Your task to perform on an android device: Open Google Chrome and open the bookmarks view Image 0: 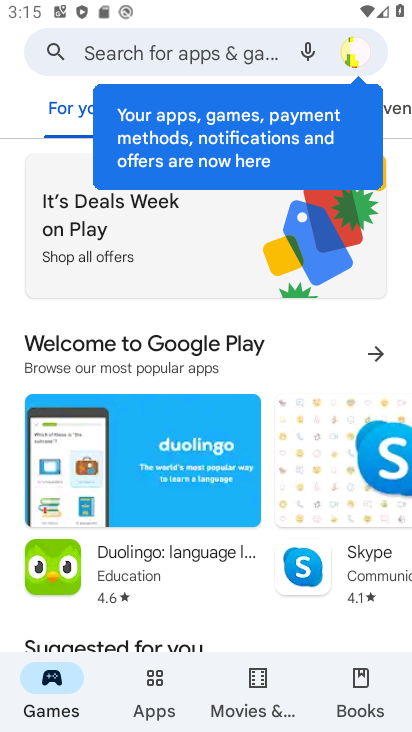
Step 0: press home button
Your task to perform on an android device: Open Google Chrome and open the bookmarks view Image 1: 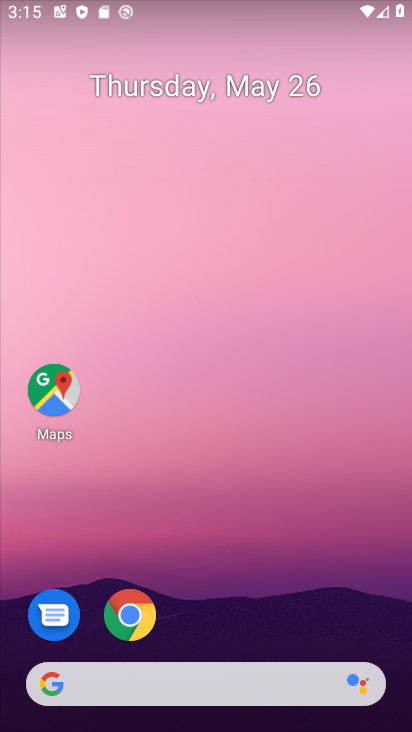
Step 1: click (133, 605)
Your task to perform on an android device: Open Google Chrome and open the bookmarks view Image 2: 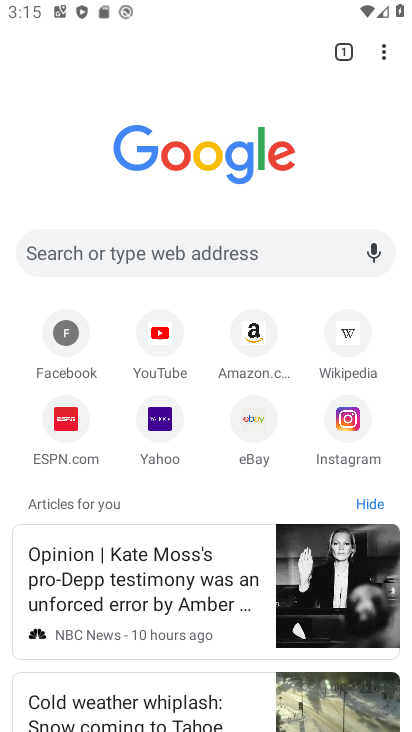
Step 2: click (389, 42)
Your task to perform on an android device: Open Google Chrome and open the bookmarks view Image 3: 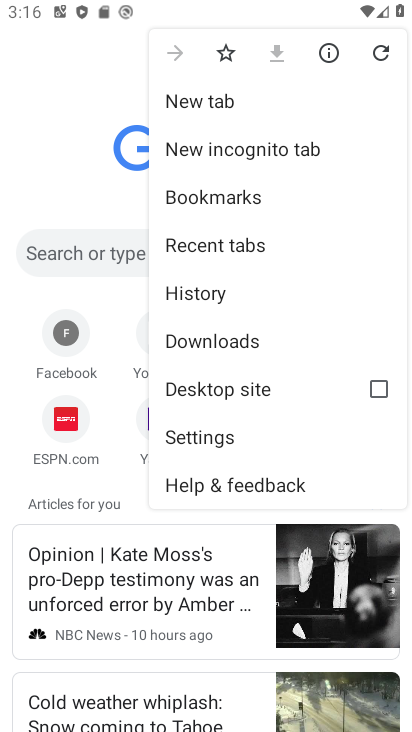
Step 3: click (222, 205)
Your task to perform on an android device: Open Google Chrome and open the bookmarks view Image 4: 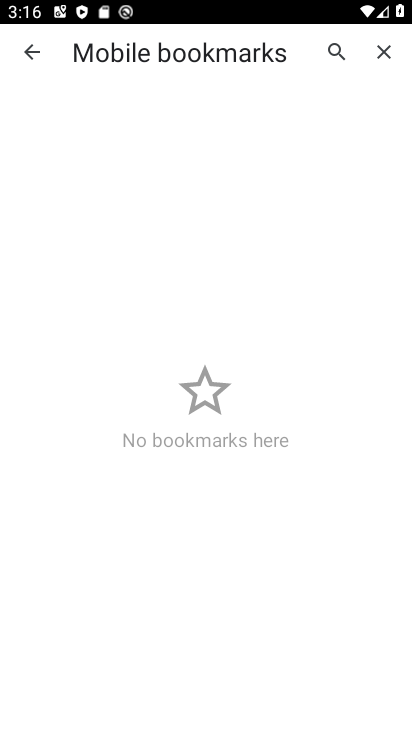
Step 4: task complete